Your task to perform on an android device: see tabs open on other devices in the chrome app Image 0: 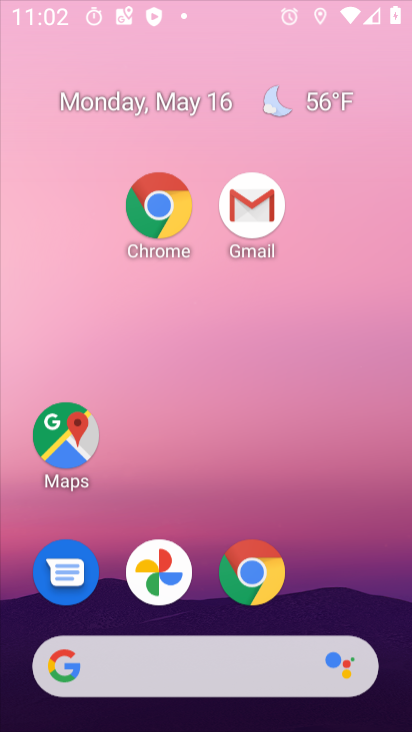
Step 0: drag from (303, 557) to (371, 74)
Your task to perform on an android device: see tabs open on other devices in the chrome app Image 1: 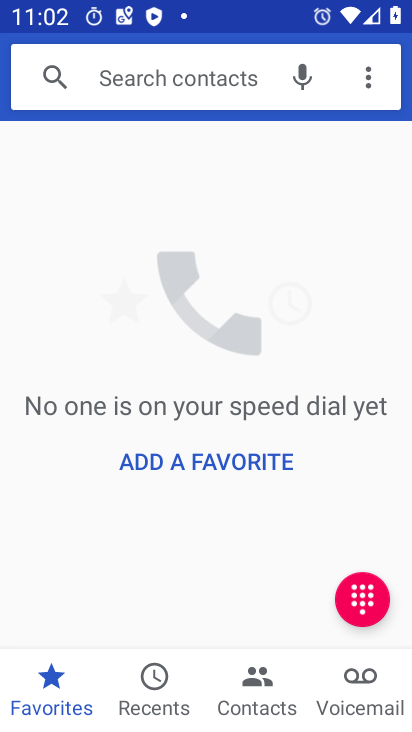
Step 1: press back button
Your task to perform on an android device: see tabs open on other devices in the chrome app Image 2: 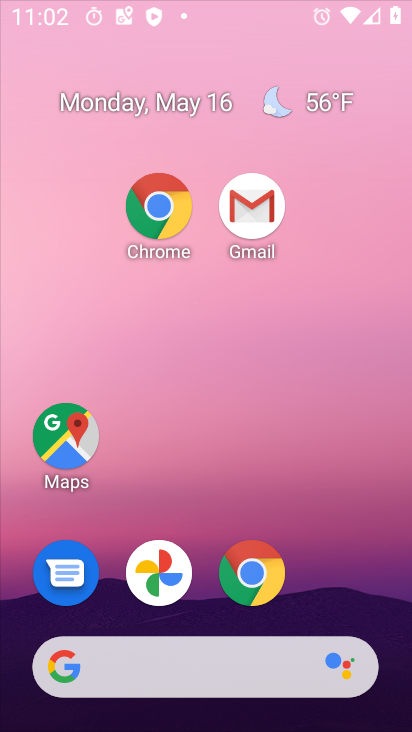
Step 2: press back button
Your task to perform on an android device: see tabs open on other devices in the chrome app Image 3: 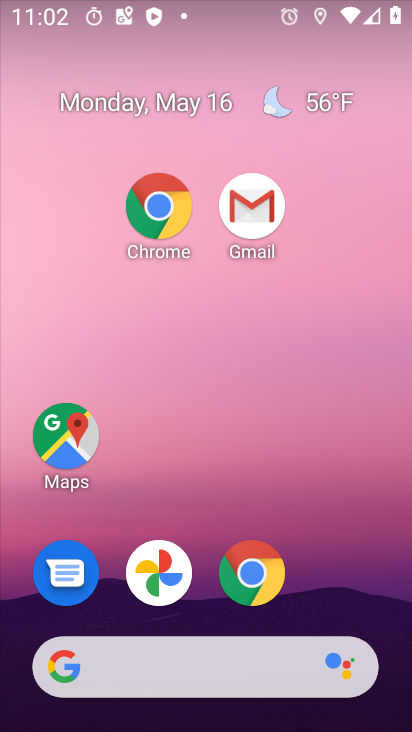
Step 3: press back button
Your task to perform on an android device: see tabs open on other devices in the chrome app Image 4: 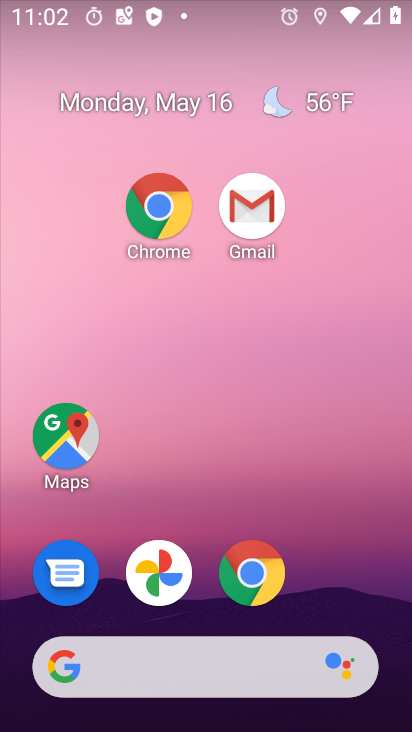
Step 4: drag from (396, 661) to (138, 27)
Your task to perform on an android device: see tabs open on other devices in the chrome app Image 5: 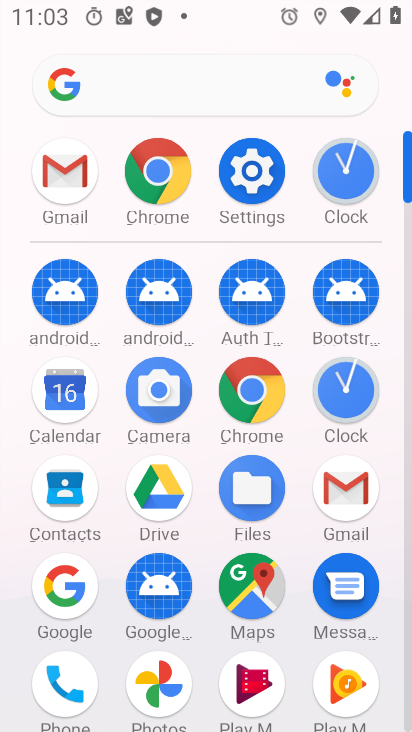
Step 5: click (161, 169)
Your task to perform on an android device: see tabs open on other devices in the chrome app Image 6: 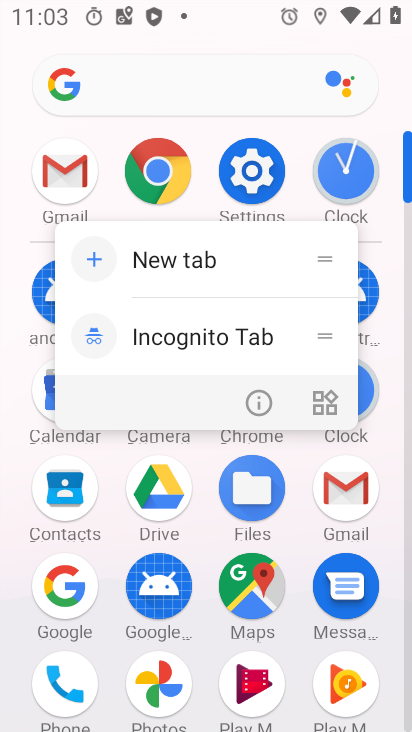
Step 6: click (139, 163)
Your task to perform on an android device: see tabs open on other devices in the chrome app Image 7: 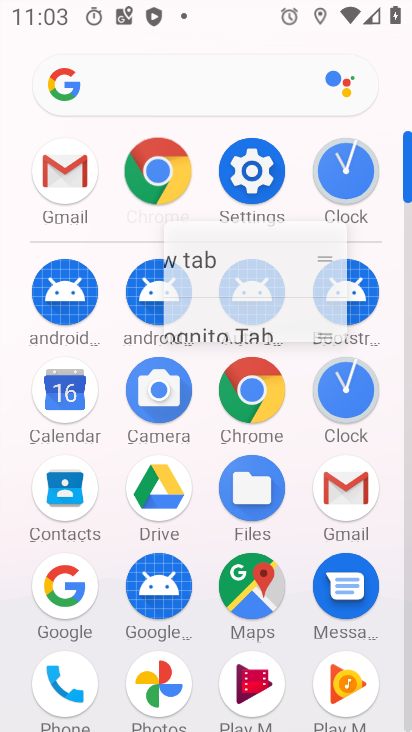
Step 7: click (150, 153)
Your task to perform on an android device: see tabs open on other devices in the chrome app Image 8: 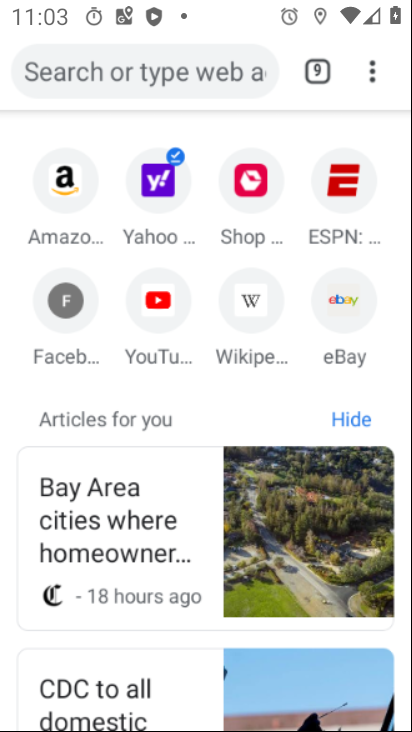
Step 8: click (160, 170)
Your task to perform on an android device: see tabs open on other devices in the chrome app Image 9: 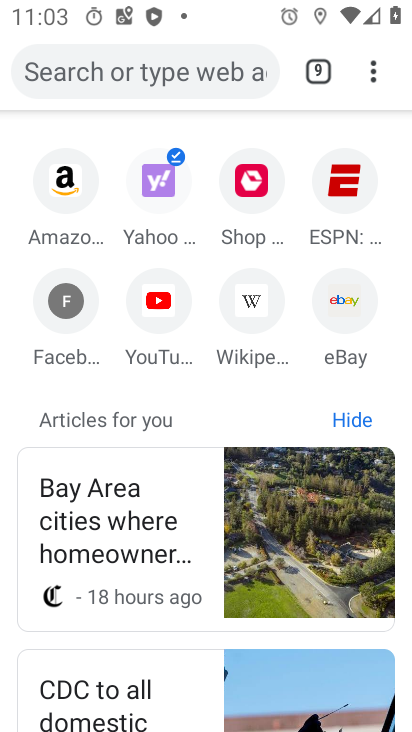
Step 9: click (159, 168)
Your task to perform on an android device: see tabs open on other devices in the chrome app Image 10: 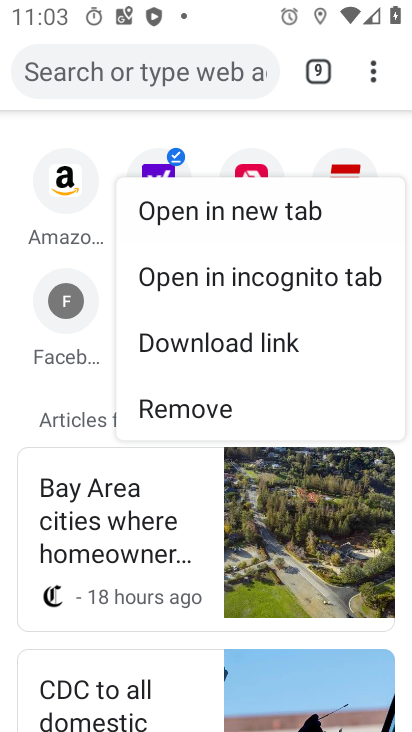
Step 10: click (158, 158)
Your task to perform on an android device: see tabs open on other devices in the chrome app Image 11: 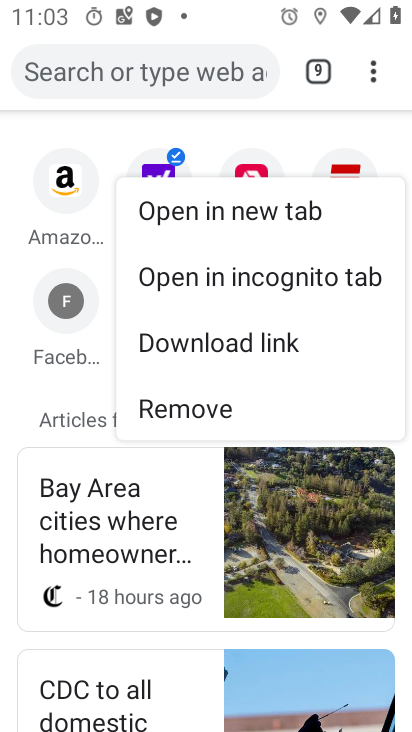
Step 11: click (157, 154)
Your task to perform on an android device: see tabs open on other devices in the chrome app Image 12: 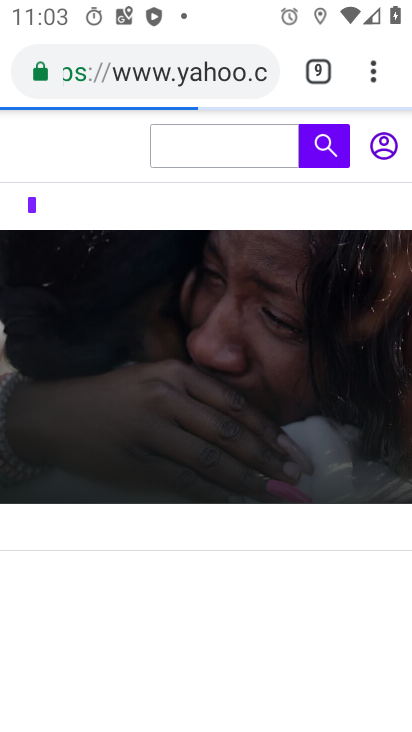
Step 12: drag from (372, 75) to (141, 331)
Your task to perform on an android device: see tabs open on other devices in the chrome app Image 13: 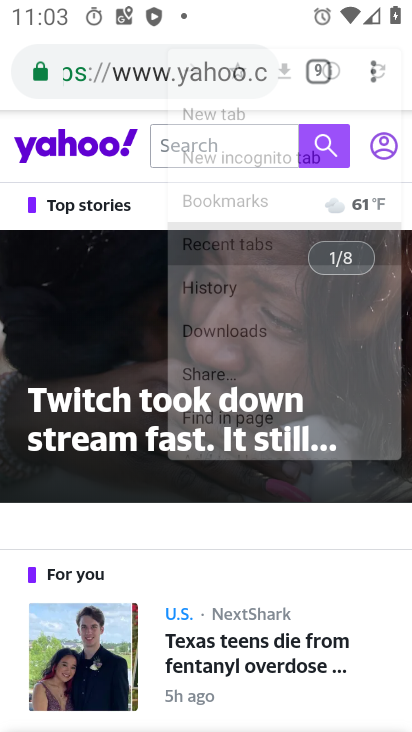
Step 13: click (141, 331)
Your task to perform on an android device: see tabs open on other devices in the chrome app Image 14: 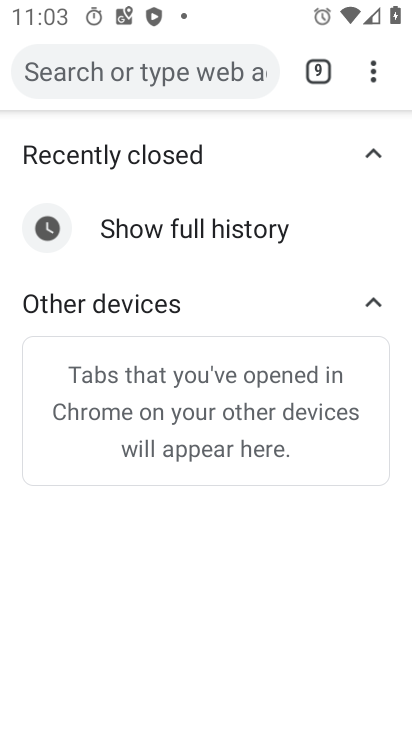
Step 14: click (153, 335)
Your task to perform on an android device: see tabs open on other devices in the chrome app Image 15: 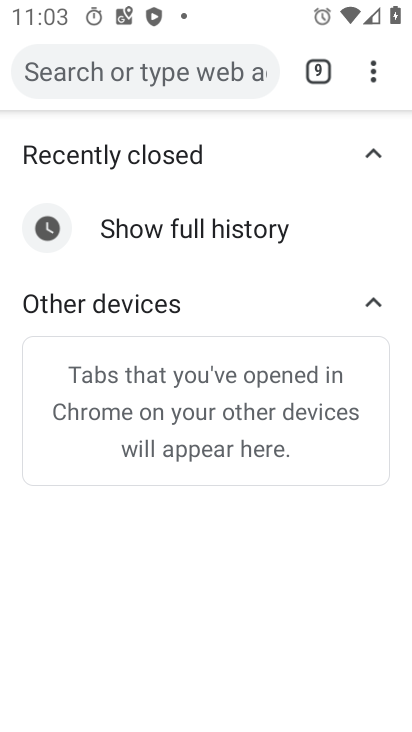
Step 15: task complete